Your task to perform on an android device: check storage Image 0: 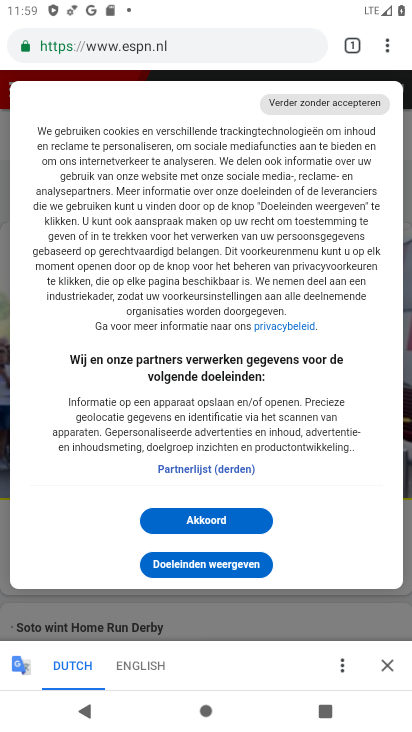
Step 0: drag from (311, 10) to (329, 524)
Your task to perform on an android device: check storage Image 1: 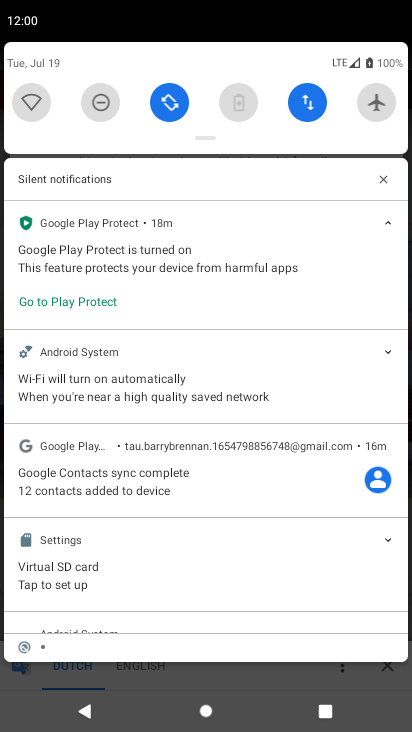
Step 1: click (238, 89)
Your task to perform on an android device: check storage Image 2: 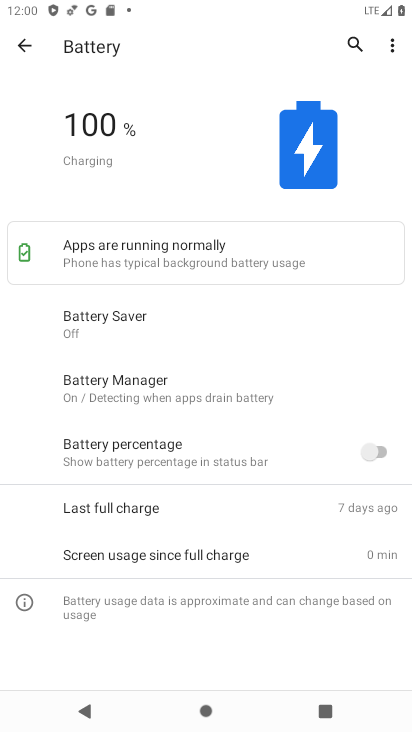
Step 2: task complete